Your task to perform on an android device: toggle location history Image 0: 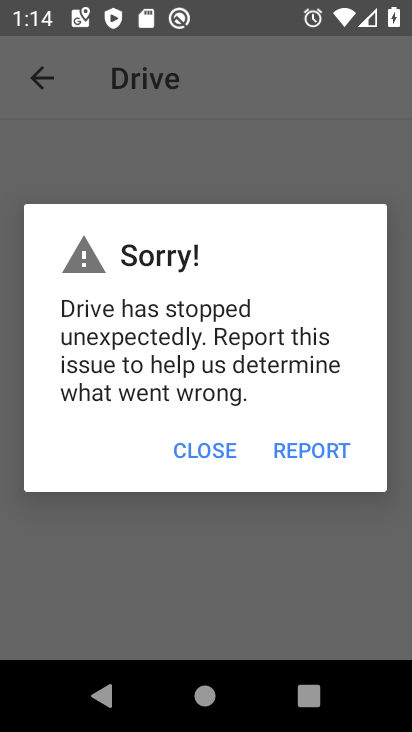
Step 0: press home button
Your task to perform on an android device: toggle location history Image 1: 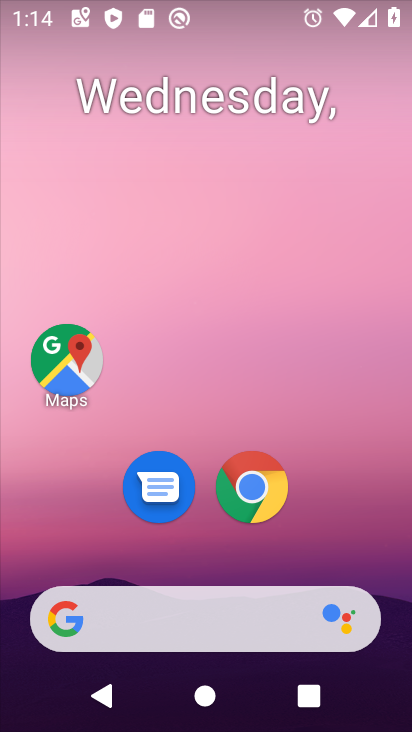
Step 1: drag from (256, 549) to (327, 167)
Your task to perform on an android device: toggle location history Image 2: 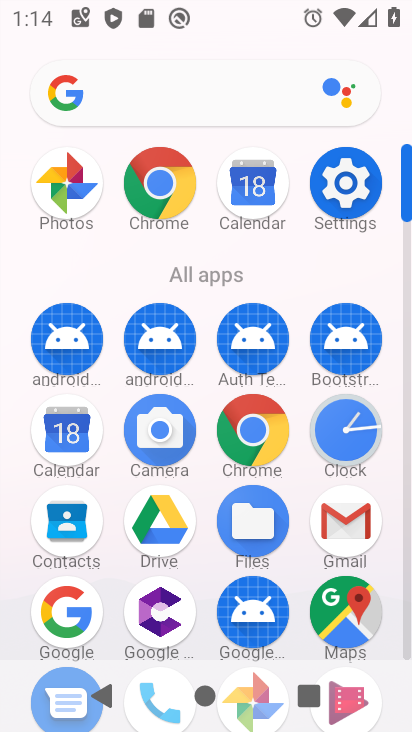
Step 2: drag from (130, 575) to (204, 249)
Your task to perform on an android device: toggle location history Image 3: 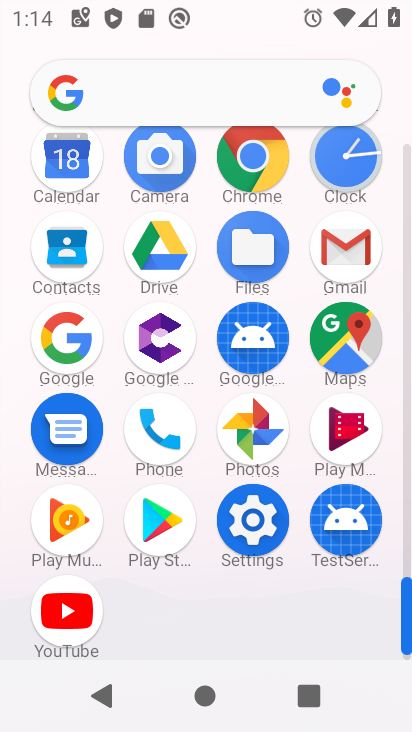
Step 3: click (278, 526)
Your task to perform on an android device: toggle location history Image 4: 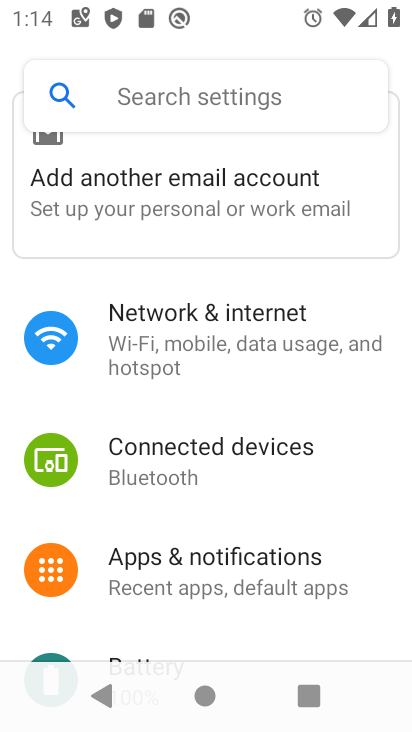
Step 4: drag from (274, 589) to (310, 294)
Your task to perform on an android device: toggle location history Image 5: 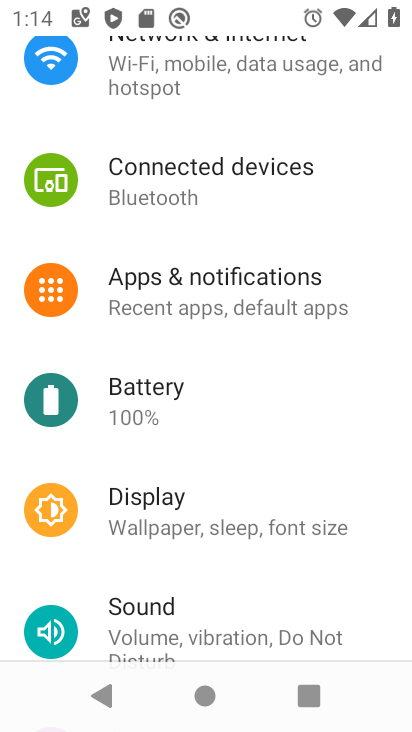
Step 5: drag from (267, 534) to (326, 173)
Your task to perform on an android device: toggle location history Image 6: 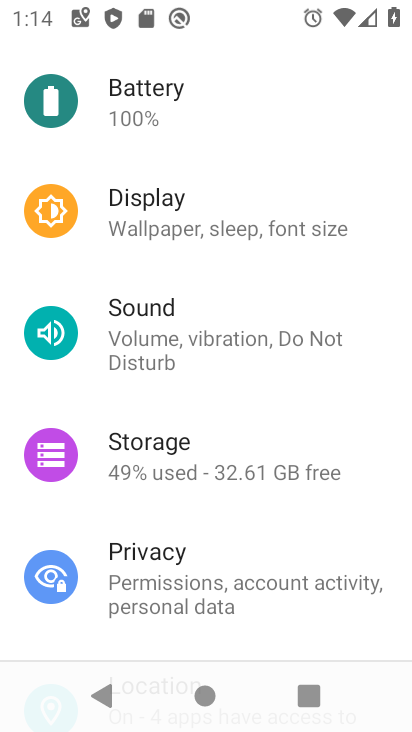
Step 6: drag from (207, 511) to (276, 213)
Your task to perform on an android device: toggle location history Image 7: 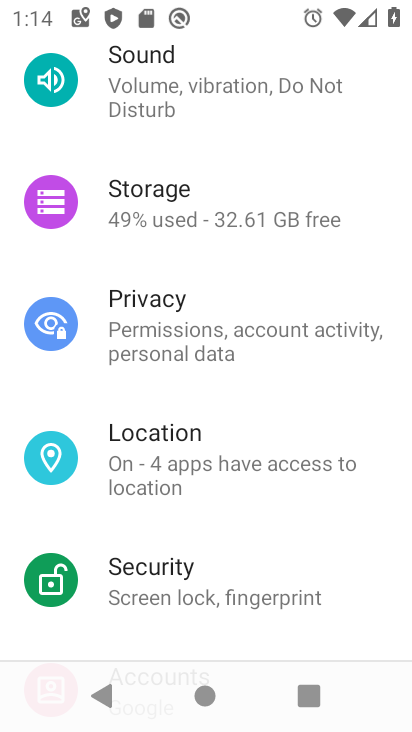
Step 7: click (202, 470)
Your task to perform on an android device: toggle location history Image 8: 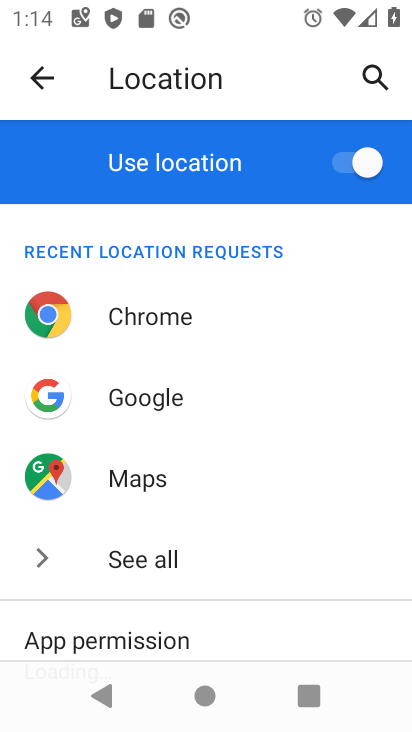
Step 8: drag from (178, 611) to (272, 308)
Your task to perform on an android device: toggle location history Image 9: 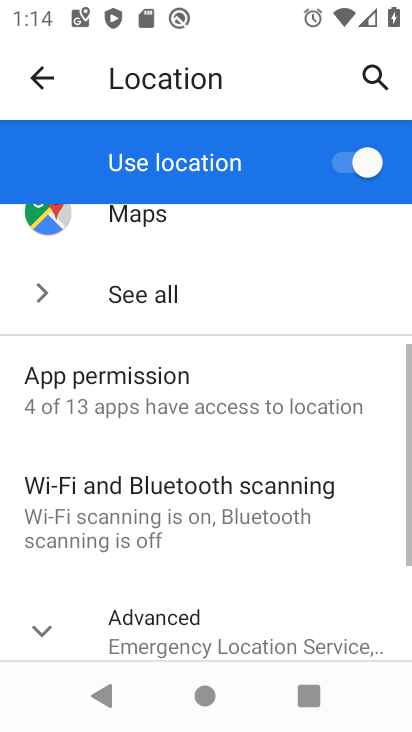
Step 9: drag from (237, 581) to (288, 343)
Your task to perform on an android device: toggle location history Image 10: 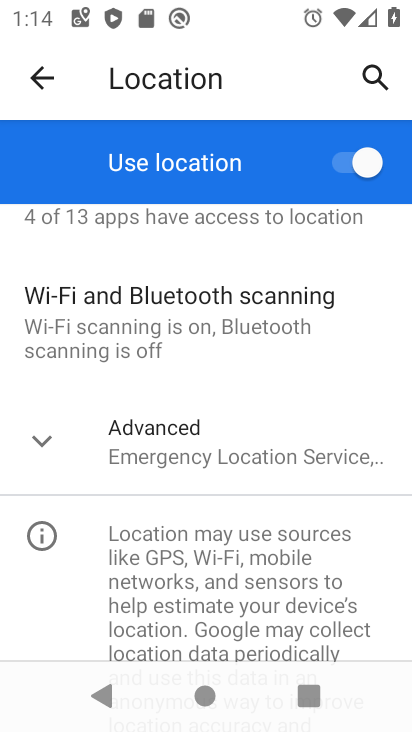
Step 10: drag from (239, 587) to (261, 475)
Your task to perform on an android device: toggle location history Image 11: 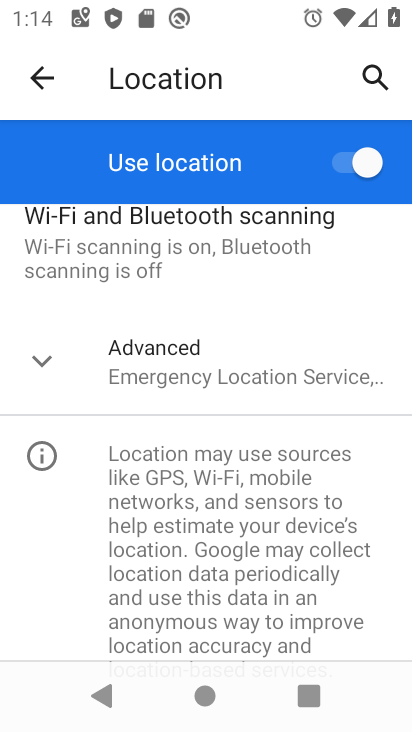
Step 11: click (42, 357)
Your task to perform on an android device: toggle location history Image 12: 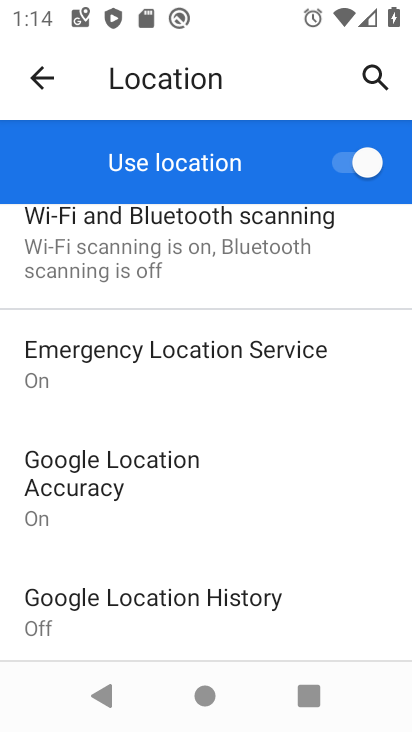
Step 12: drag from (169, 593) to (201, 443)
Your task to perform on an android device: toggle location history Image 13: 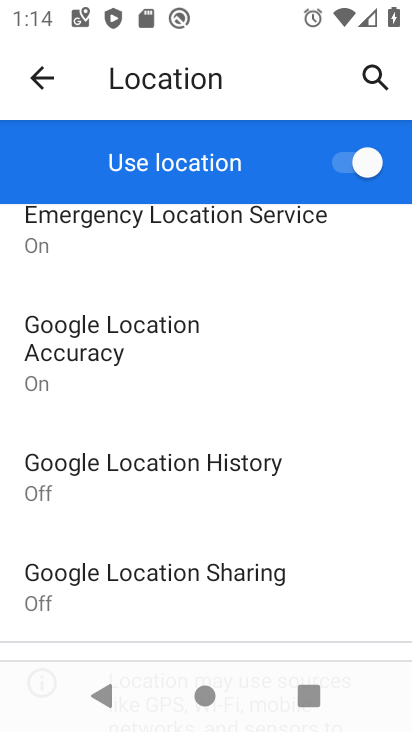
Step 13: click (170, 481)
Your task to perform on an android device: toggle location history Image 14: 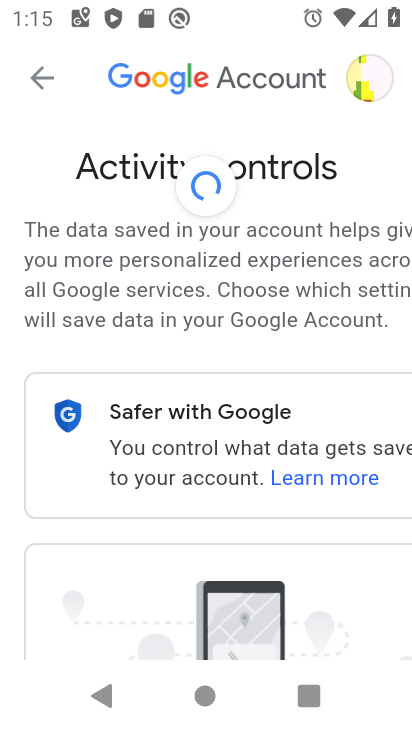
Step 14: drag from (216, 514) to (311, 187)
Your task to perform on an android device: toggle location history Image 15: 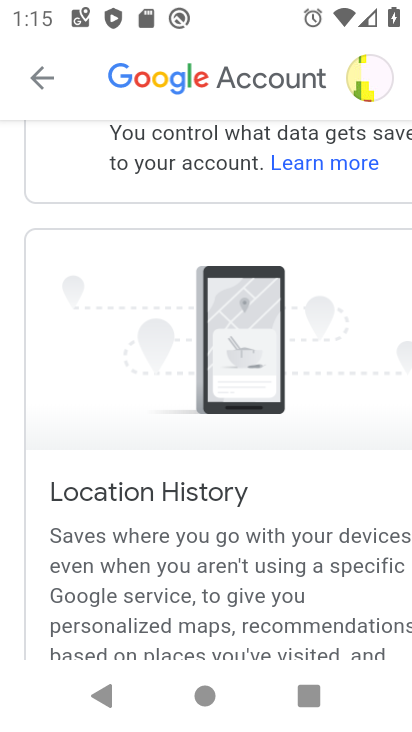
Step 15: drag from (205, 540) to (293, 241)
Your task to perform on an android device: toggle location history Image 16: 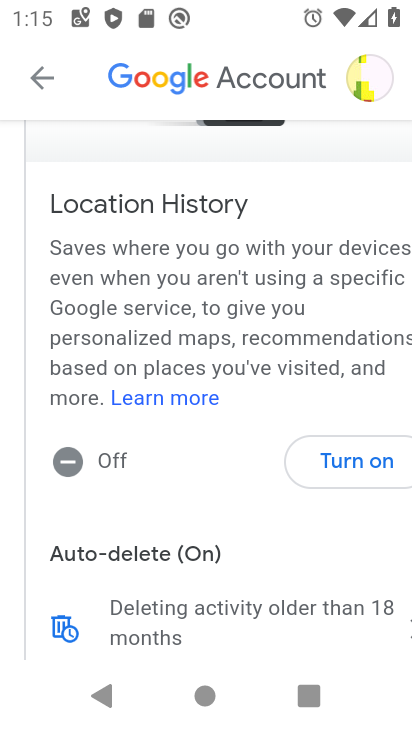
Step 16: click (345, 451)
Your task to perform on an android device: toggle location history Image 17: 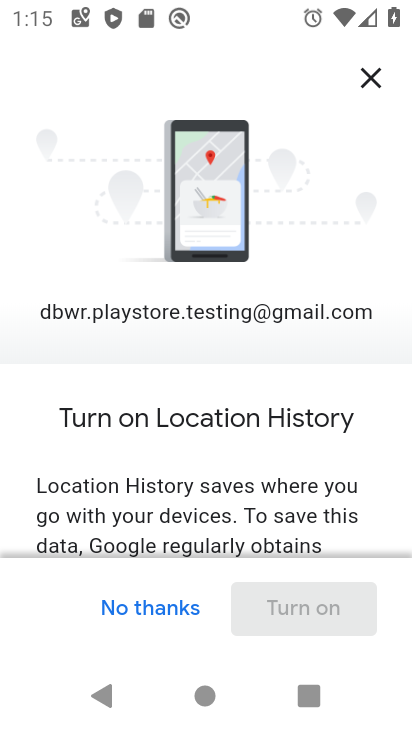
Step 17: drag from (267, 532) to (304, 186)
Your task to perform on an android device: toggle location history Image 18: 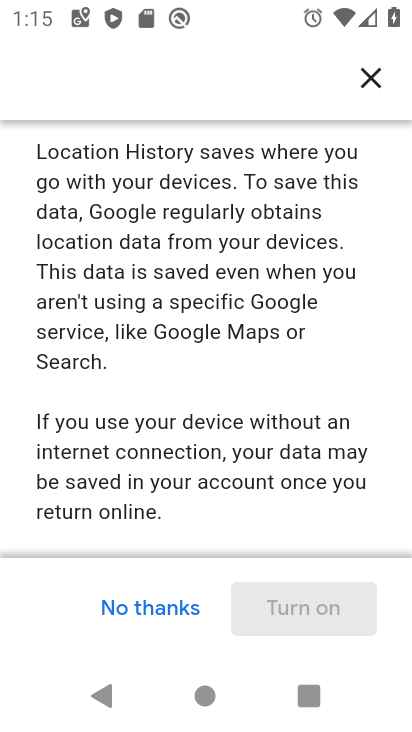
Step 18: drag from (272, 521) to (375, 108)
Your task to perform on an android device: toggle location history Image 19: 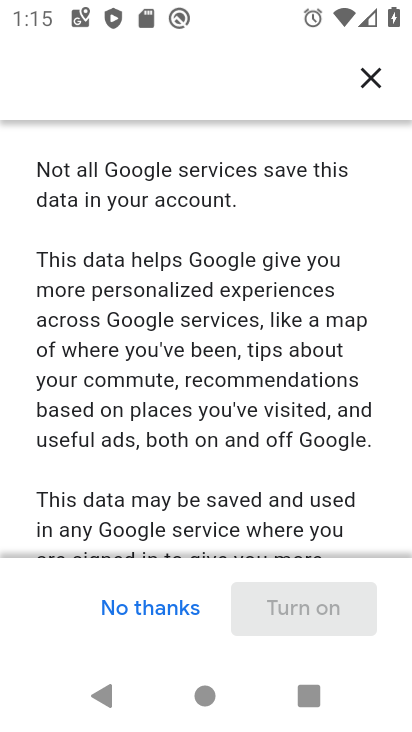
Step 19: drag from (296, 447) to (380, 110)
Your task to perform on an android device: toggle location history Image 20: 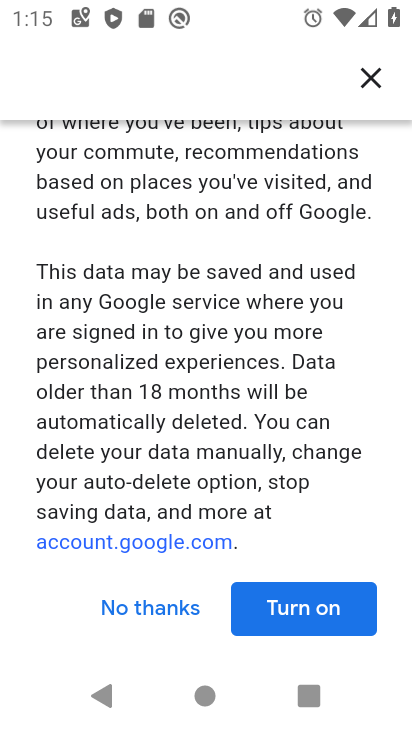
Step 20: click (300, 617)
Your task to perform on an android device: toggle location history Image 21: 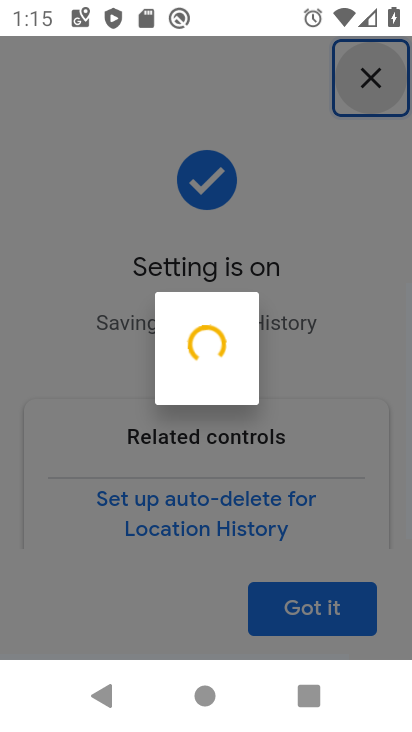
Step 21: click (302, 613)
Your task to perform on an android device: toggle location history Image 22: 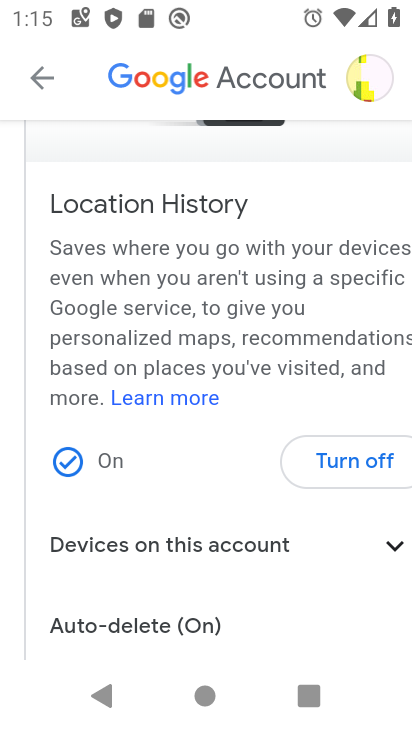
Step 22: task complete